Your task to perform on an android device: Open location settings Image 0: 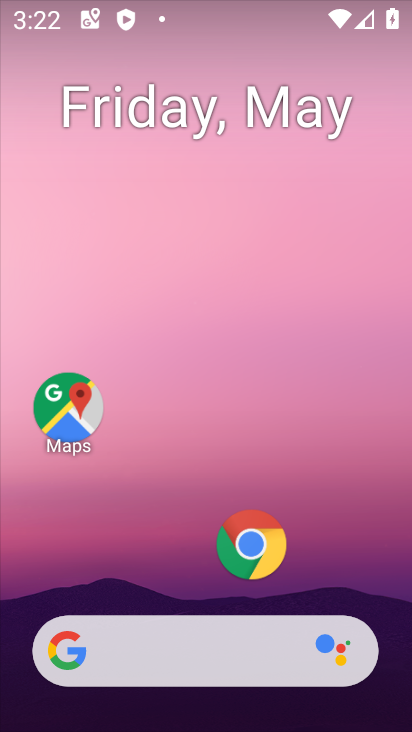
Step 0: drag from (196, 591) to (248, 221)
Your task to perform on an android device: Open location settings Image 1: 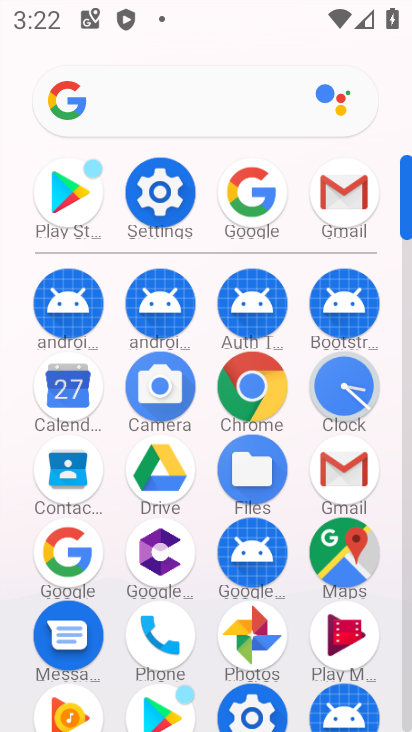
Step 1: click (177, 203)
Your task to perform on an android device: Open location settings Image 2: 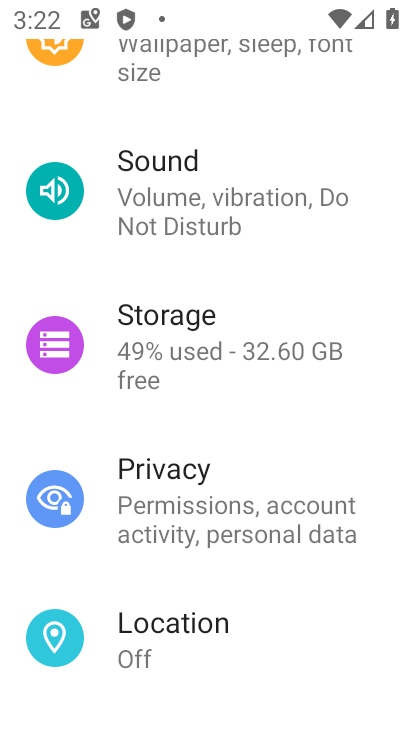
Step 2: click (274, 633)
Your task to perform on an android device: Open location settings Image 3: 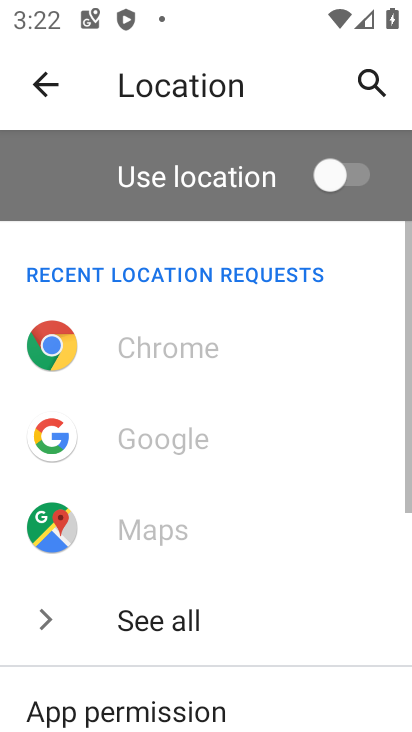
Step 3: task complete